Your task to perform on an android device: turn on notifications settings in the gmail app Image 0: 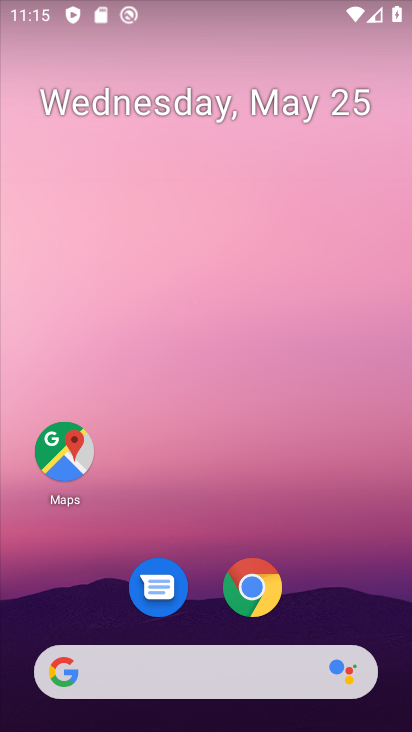
Step 0: drag from (262, 695) to (297, 131)
Your task to perform on an android device: turn on notifications settings in the gmail app Image 1: 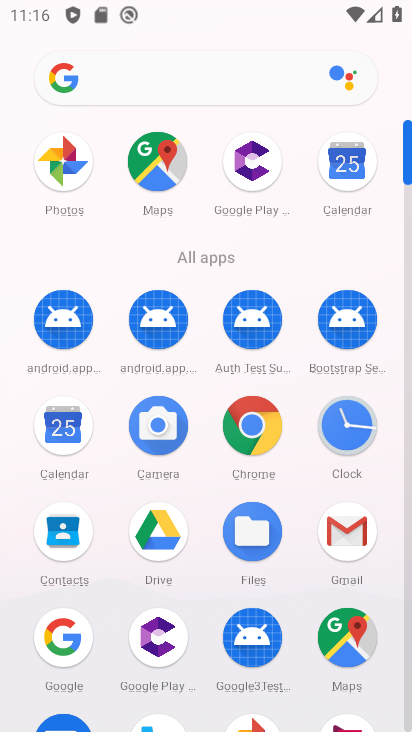
Step 1: click (322, 554)
Your task to perform on an android device: turn on notifications settings in the gmail app Image 2: 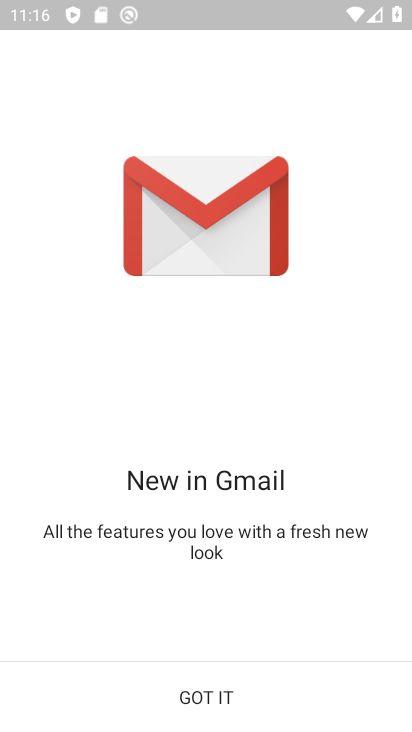
Step 2: click (247, 672)
Your task to perform on an android device: turn on notifications settings in the gmail app Image 3: 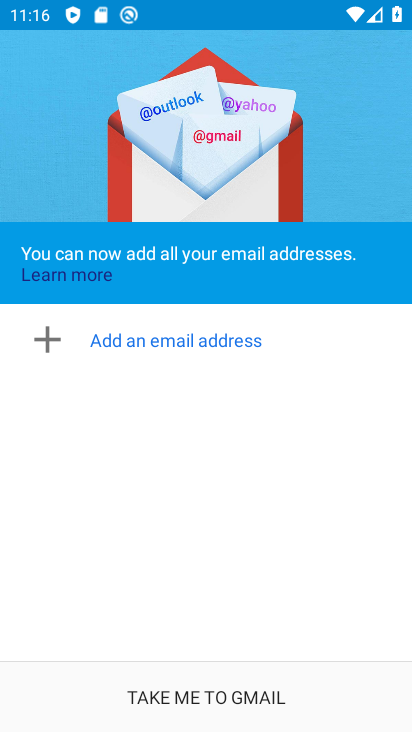
Step 3: click (225, 706)
Your task to perform on an android device: turn on notifications settings in the gmail app Image 4: 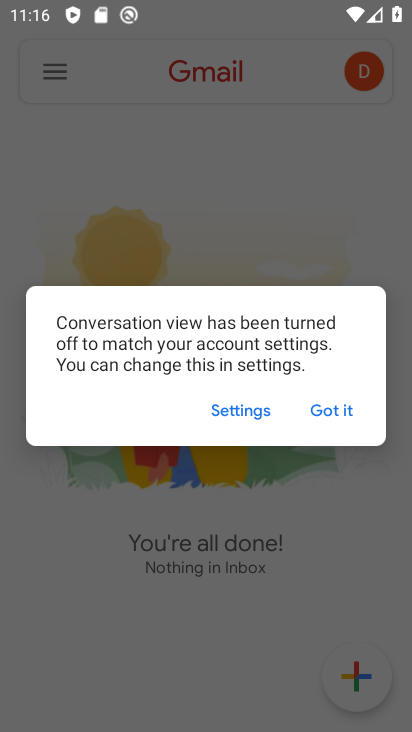
Step 4: click (327, 408)
Your task to perform on an android device: turn on notifications settings in the gmail app Image 5: 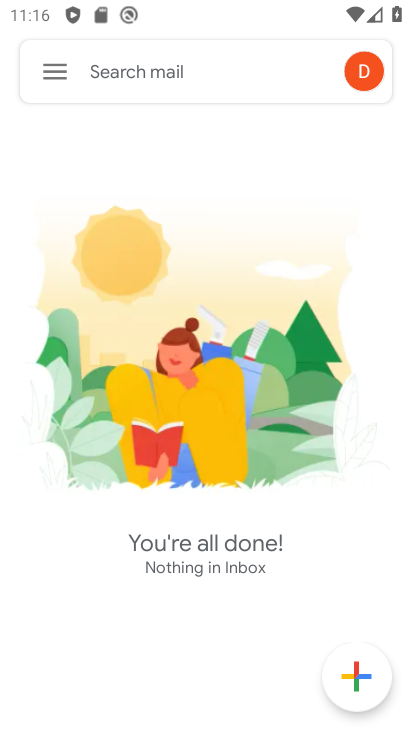
Step 5: click (37, 81)
Your task to perform on an android device: turn on notifications settings in the gmail app Image 6: 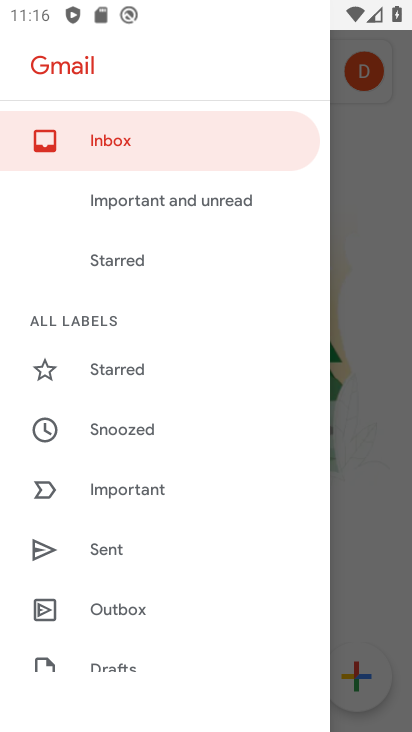
Step 6: drag from (141, 573) to (153, 428)
Your task to perform on an android device: turn on notifications settings in the gmail app Image 7: 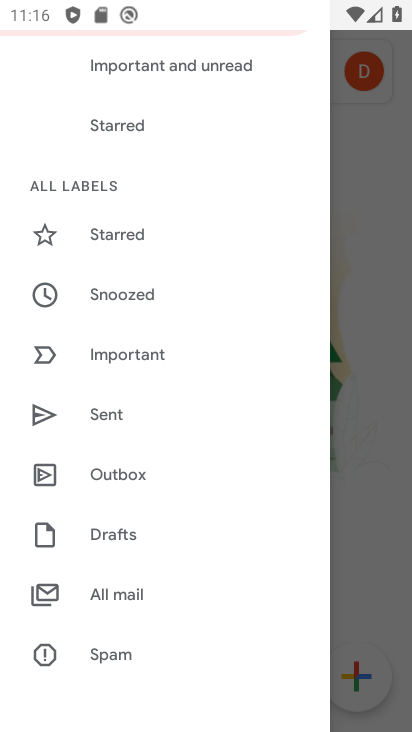
Step 7: drag from (120, 627) to (133, 427)
Your task to perform on an android device: turn on notifications settings in the gmail app Image 8: 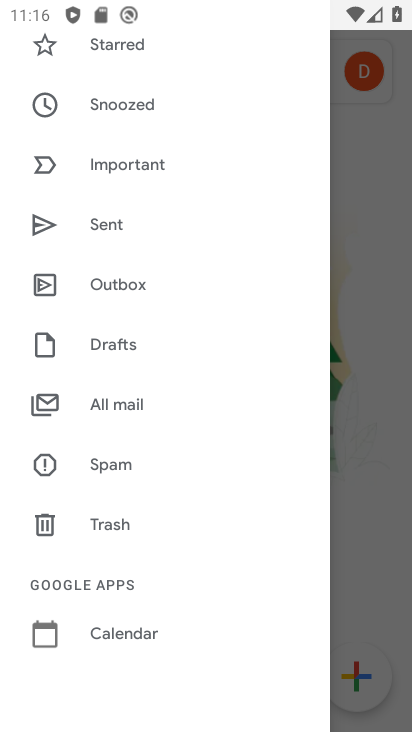
Step 8: drag from (95, 588) to (114, 364)
Your task to perform on an android device: turn on notifications settings in the gmail app Image 9: 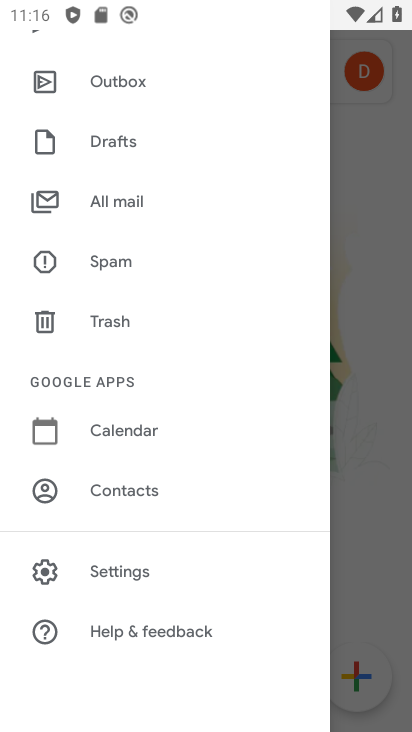
Step 9: click (110, 560)
Your task to perform on an android device: turn on notifications settings in the gmail app Image 10: 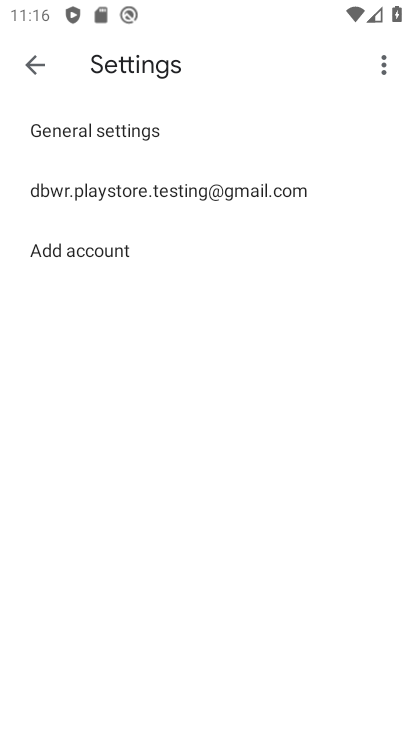
Step 10: click (156, 199)
Your task to perform on an android device: turn on notifications settings in the gmail app Image 11: 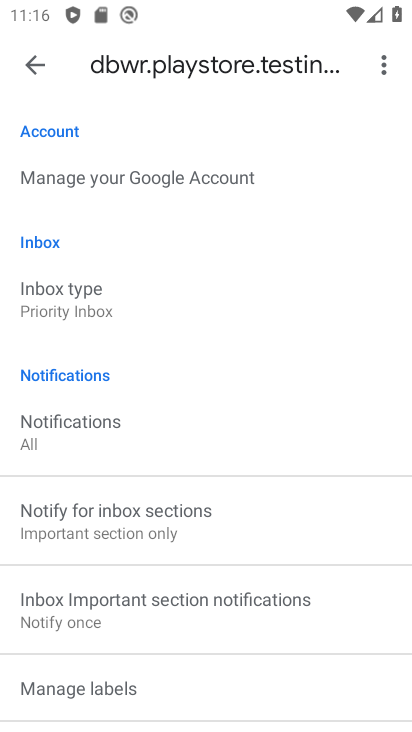
Step 11: click (94, 409)
Your task to perform on an android device: turn on notifications settings in the gmail app Image 12: 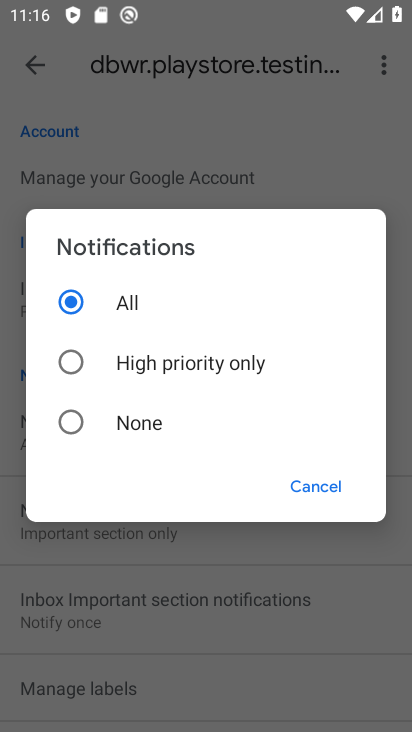
Step 12: task complete